Your task to perform on an android device: toggle sleep mode Image 0: 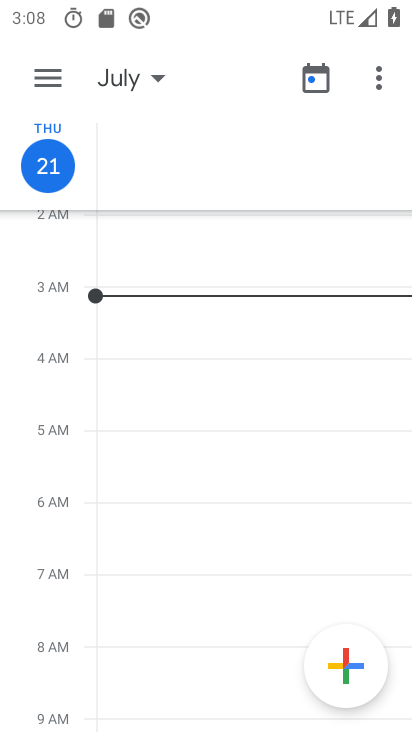
Step 0: press home button
Your task to perform on an android device: toggle sleep mode Image 1: 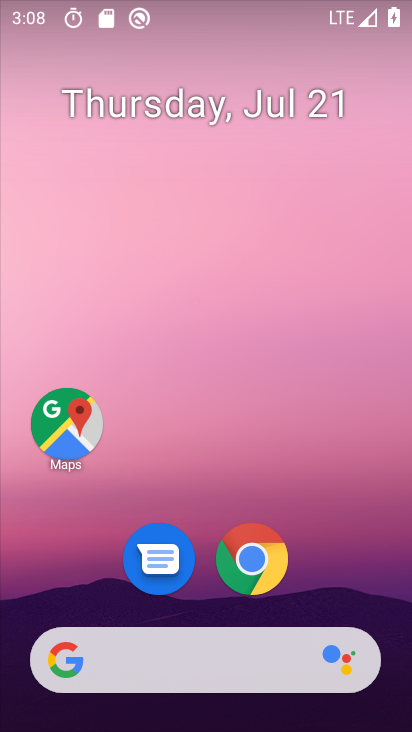
Step 1: drag from (364, 531) to (380, 83)
Your task to perform on an android device: toggle sleep mode Image 2: 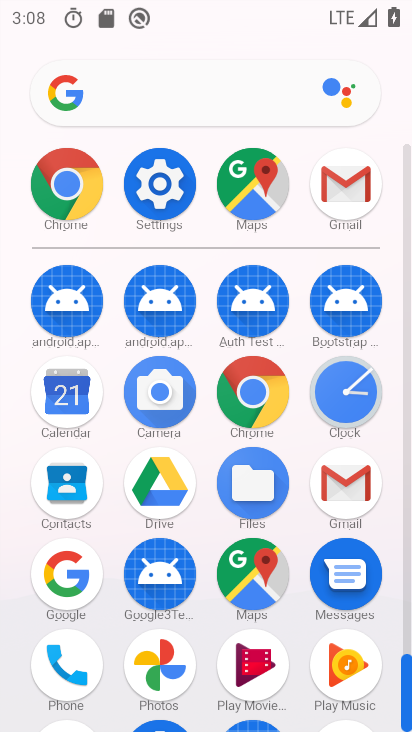
Step 2: click (164, 201)
Your task to perform on an android device: toggle sleep mode Image 3: 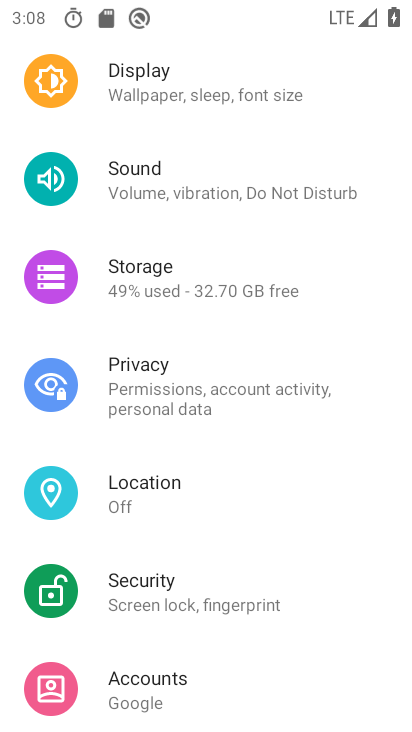
Step 3: drag from (347, 548) to (338, 402)
Your task to perform on an android device: toggle sleep mode Image 4: 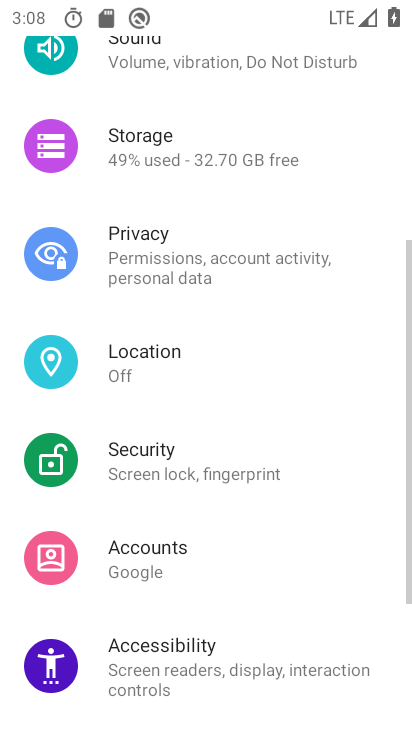
Step 4: drag from (323, 578) to (324, 465)
Your task to perform on an android device: toggle sleep mode Image 5: 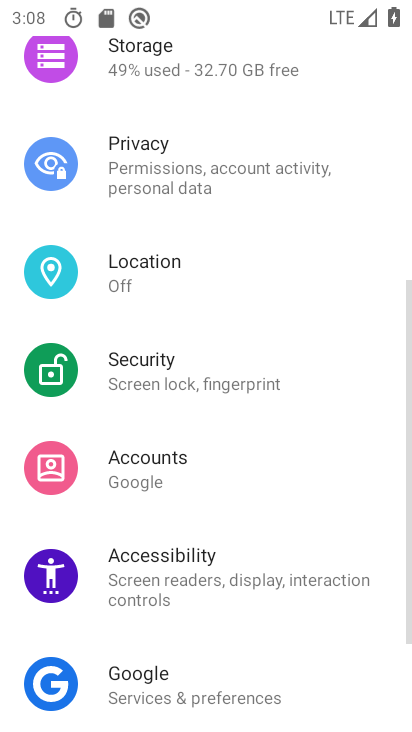
Step 5: drag from (325, 602) to (316, 511)
Your task to perform on an android device: toggle sleep mode Image 6: 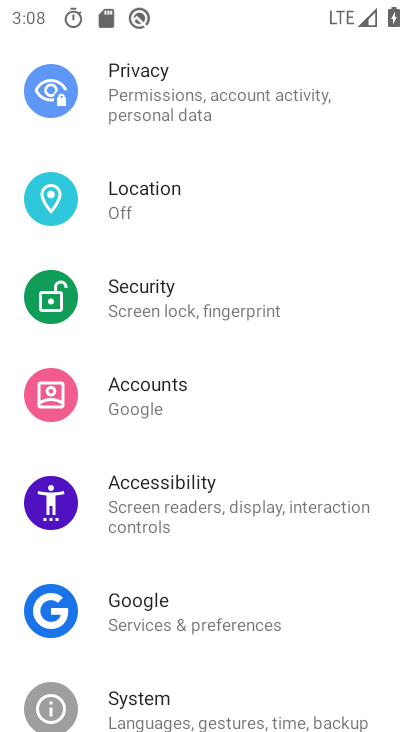
Step 6: drag from (328, 597) to (328, 424)
Your task to perform on an android device: toggle sleep mode Image 7: 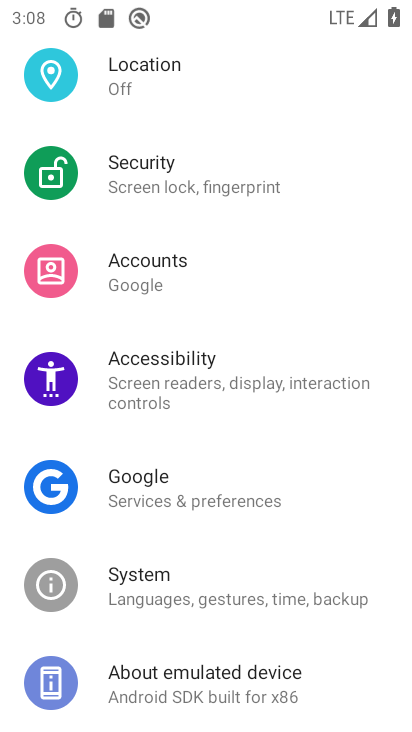
Step 7: drag from (355, 259) to (358, 381)
Your task to perform on an android device: toggle sleep mode Image 8: 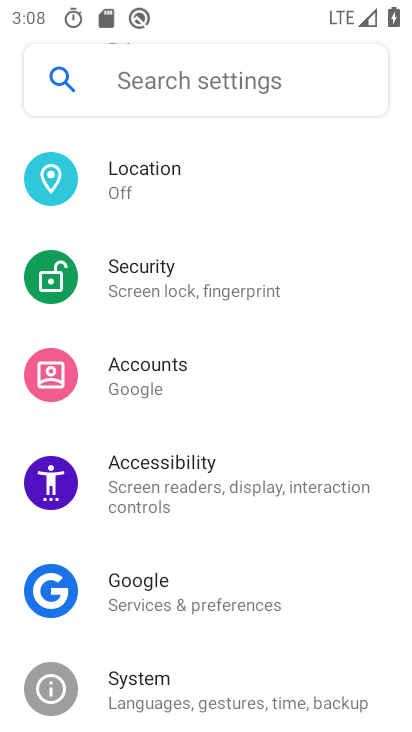
Step 8: drag from (348, 222) to (352, 380)
Your task to perform on an android device: toggle sleep mode Image 9: 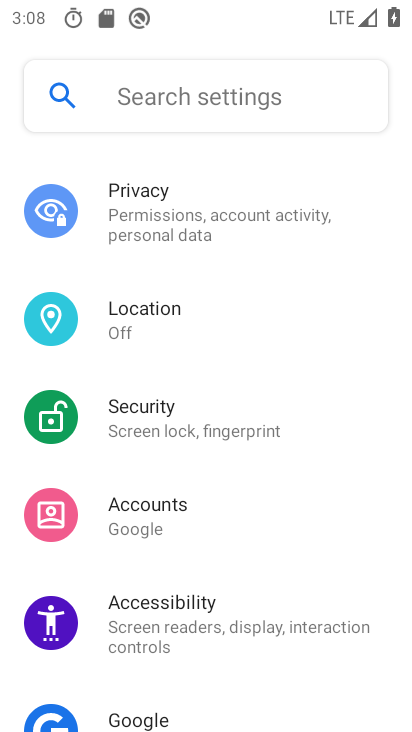
Step 9: drag from (350, 211) to (351, 371)
Your task to perform on an android device: toggle sleep mode Image 10: 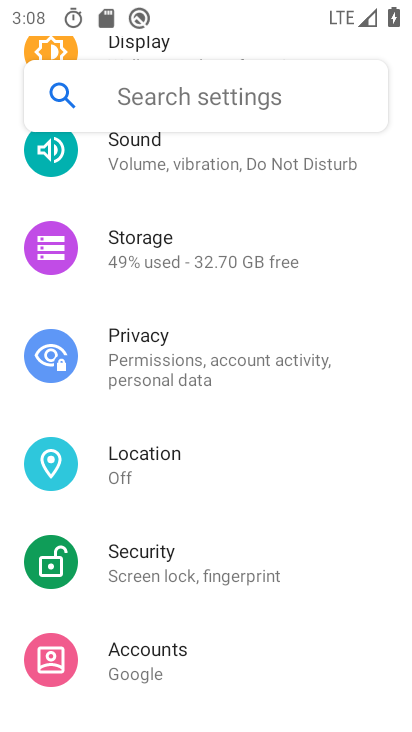
Step 10: drag from (350, 221) to (360, 407)
Your task to perform on an android device: toggle sleep mode Image 11: 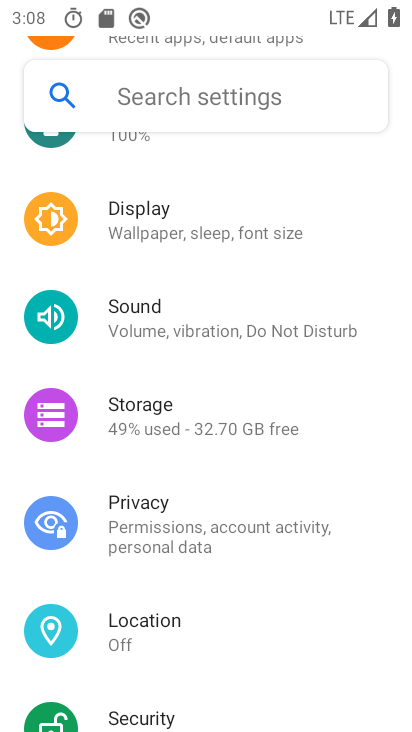
Step 11: drag from (362, 208) to (372, 454)
Your task to perform on an android device: toggle sleep mode Image 12: 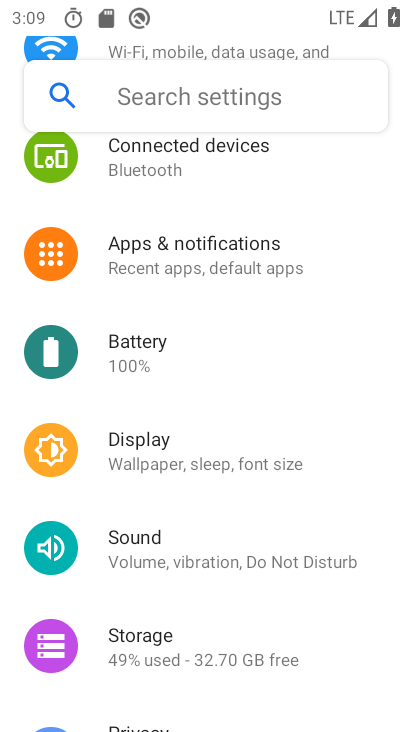
Step 12: drag from (342, 193) to (361, 412)
Your task to perform on an android device: toggle sleep mode Image 13: 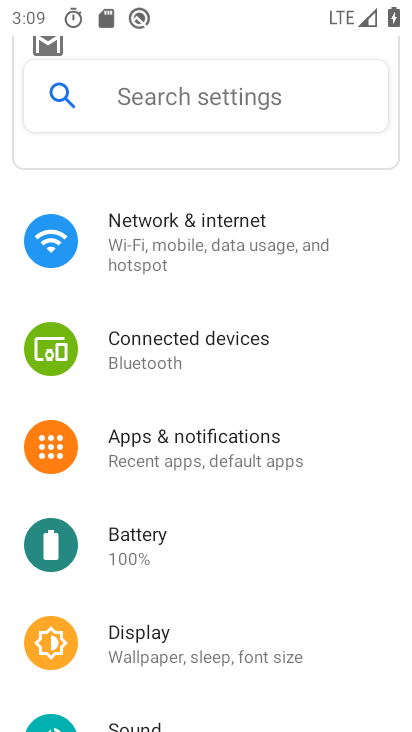
Step 13: drag from (365, 222) to (365, 428)
Your task to perform on an android device: toggle sleep mode Image 14: 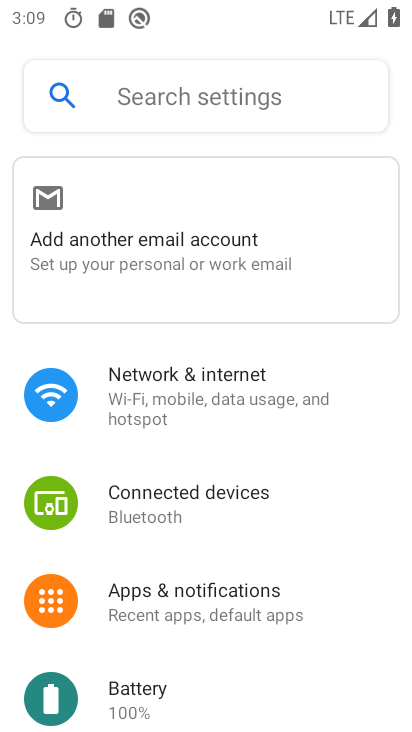
Step 14: drag from (335, 533) to (334, 378)
Your task to perform on an android device: toggle sleep mode Image 15: 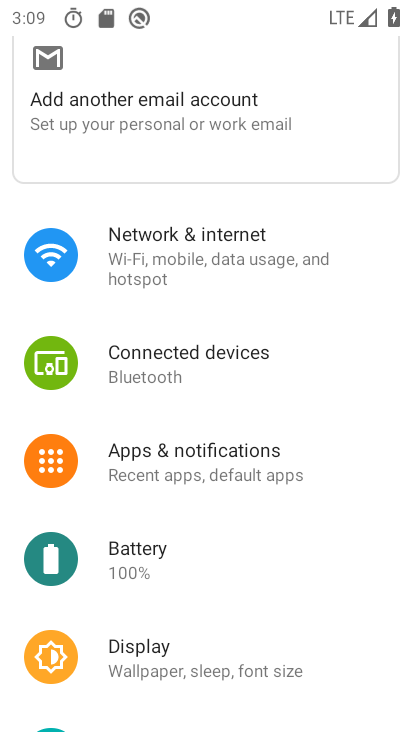
Step 15: drag from (333, 527) to (340, 377)
Your task to perform on an android device: toggle sleep mode Image 16: 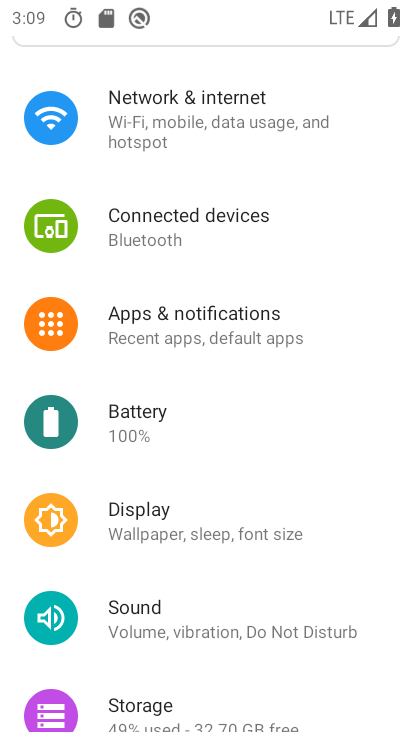
Step 16: drag from (329, 570) to (324, 415)
Your task to perform on an android device: toggle sleep mode Image 17: 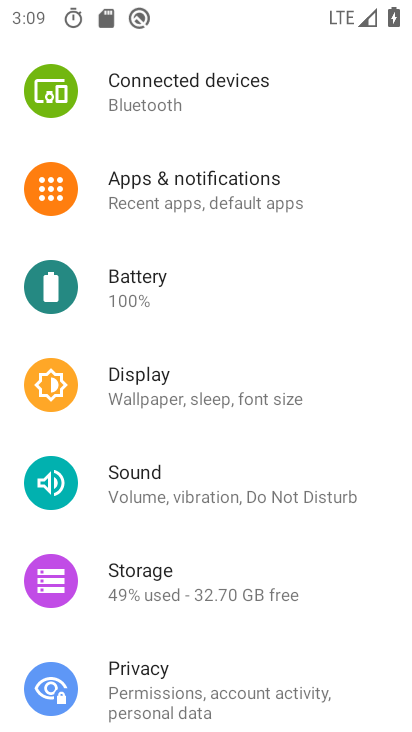
Step 17: click (253, 401)
Your task to perform on an android device: toggle sleep mode Image 18: 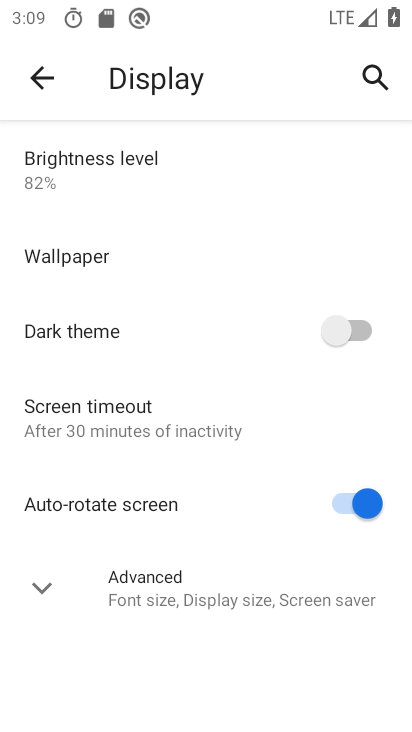
Step 18: click (257, 599)
Your task to perform on an android device: toggle sleep mode Image 19: 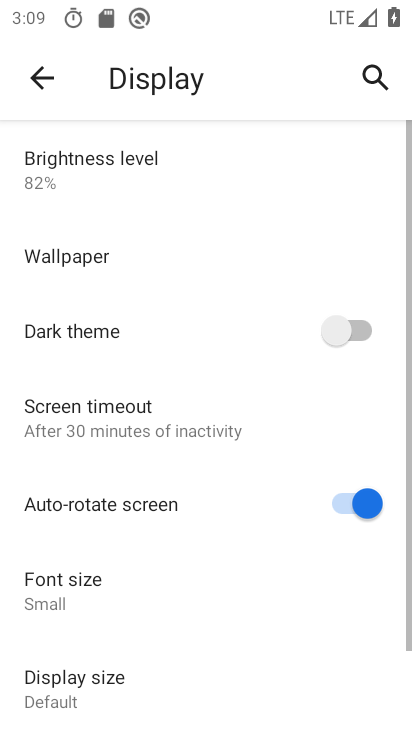
Step 19: task complete